Your task to perform on an android device: set the timer Image 0: 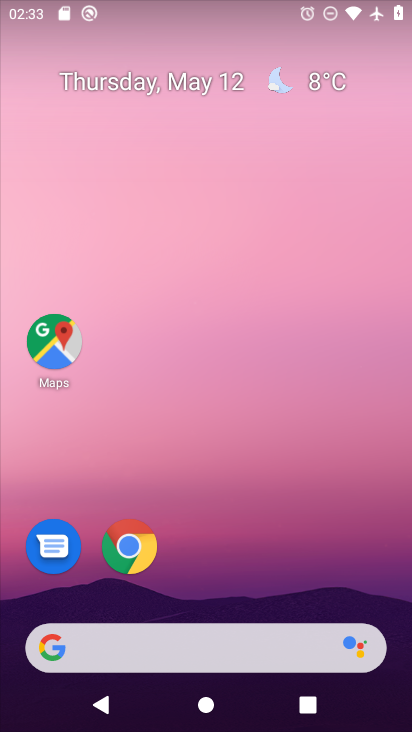
Step 0: drag from (143, 659) to (306, 67)
Your task to perform on an android device: set the timer Image 1: 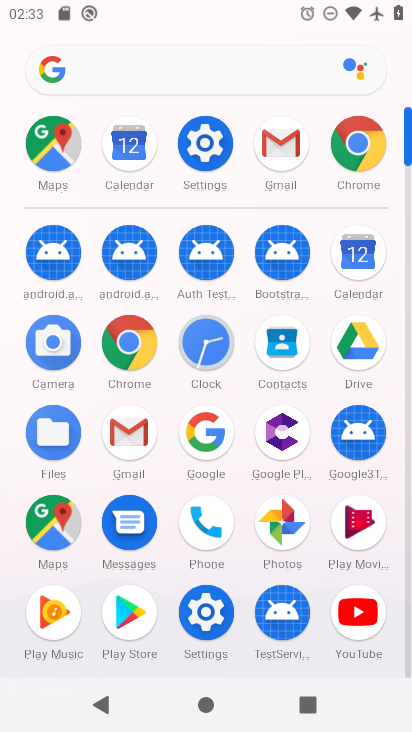
Step 1: click (215, 344)
Your task to perform on an android device: set the timer Image 2: 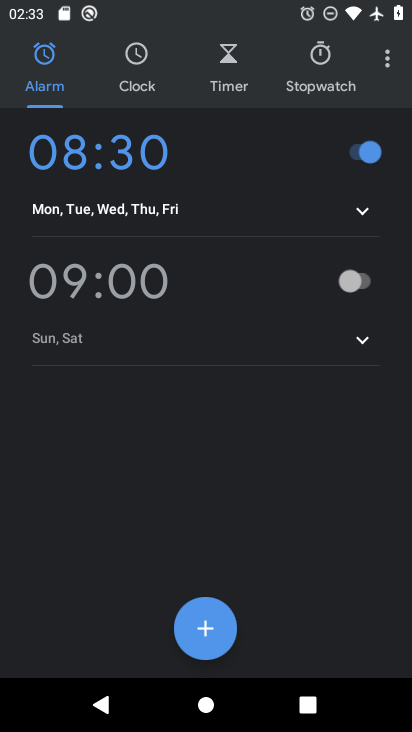
Step 2: click (223, 81)
Your task to perform on an android device: set the timer Image 3: 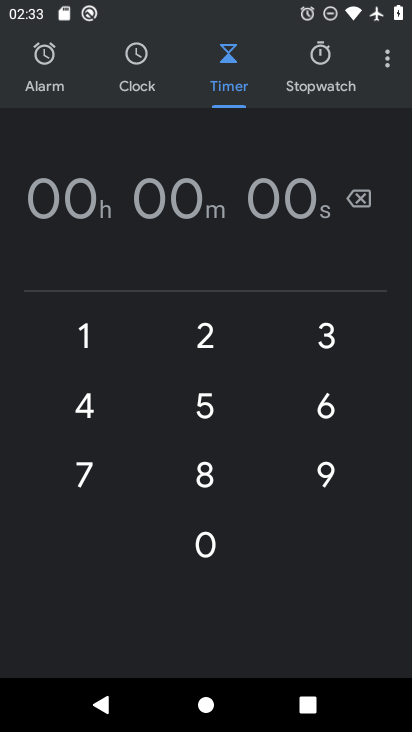
Step 3: click (326, 333)
Your task to perform on an android device: set the timer Image 4: 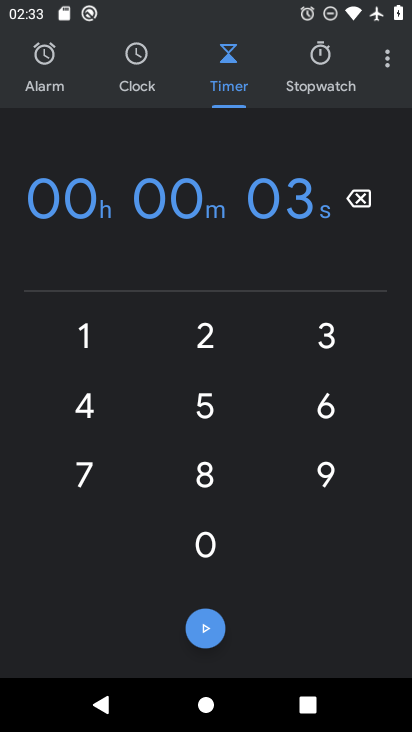
Step 4: click (324, 402)
Your task to perform on an android device: set the timer Image 5: 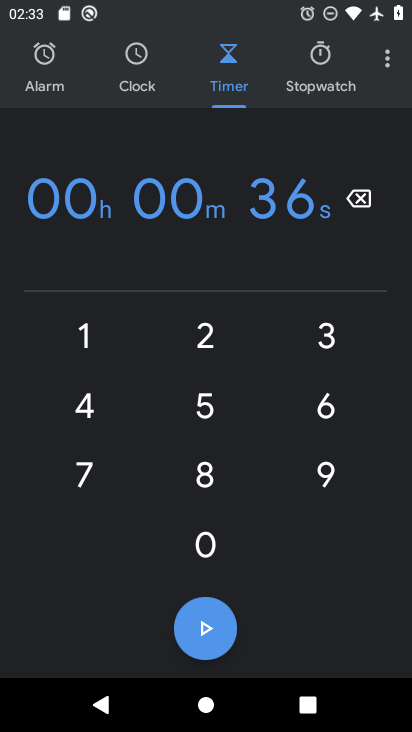
Step 5: click (199, 632)
Your task to perform on an android device: set the timer Image 6: 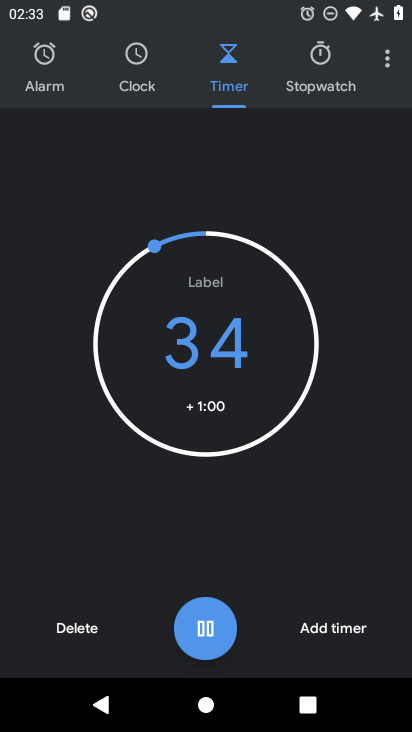
Step 6: click (210, 633)
Your task to perform on an android device: set the timer Image 7: 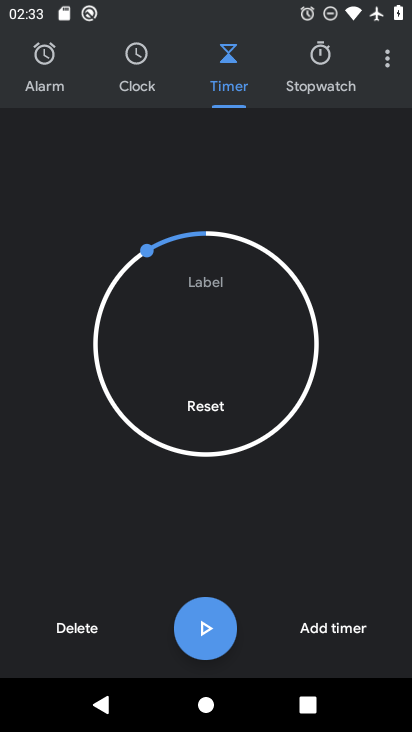
Step 7: task complete